Your task to perform on an android device: Open Wikipedia Image 0: 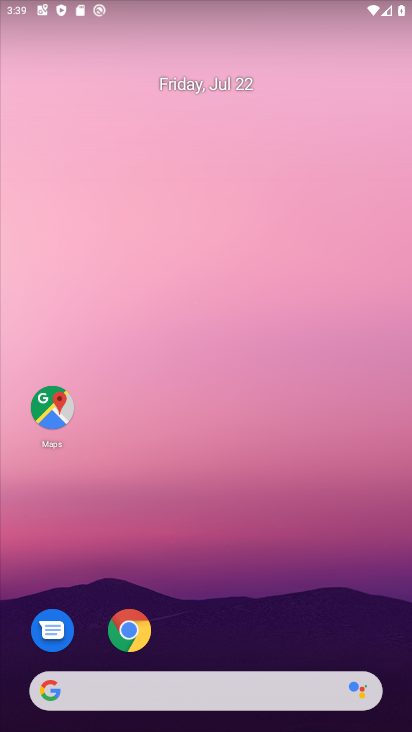
Step 0: task impossible